Your task to perform on an android device: Do I have any events tomorrow? Image 0: 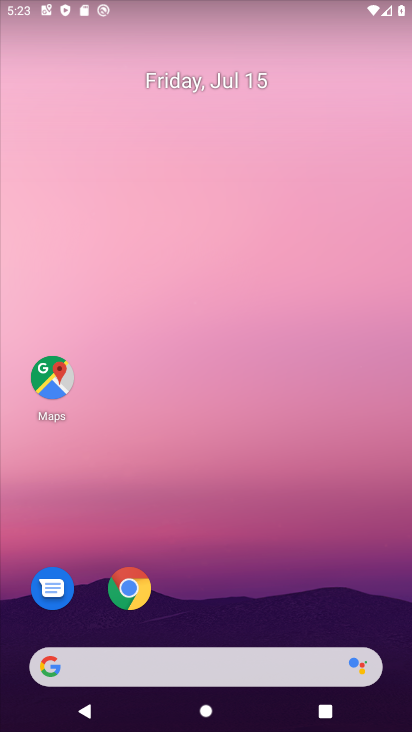
Step 0: drag from (227, 656) to (265, 154)
Your task to perform on an android device: Do I have any events tomorrow? Image 1: 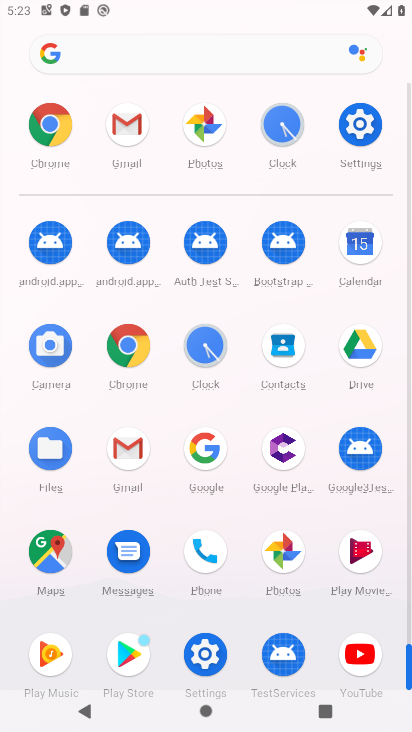
Step 1: click (357, 243)
Your task to perform on an android device: Do I have any events tomorrow? Image 2: 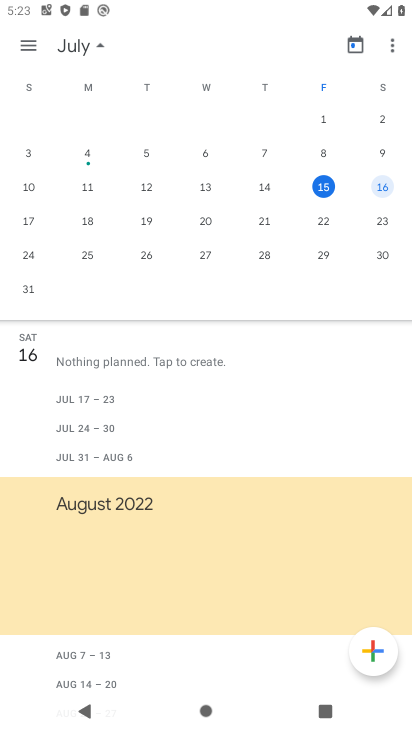
Step 2: click (378, 180)
Your task to perform on an android device: Do I have any events tomorrow? Image 3: 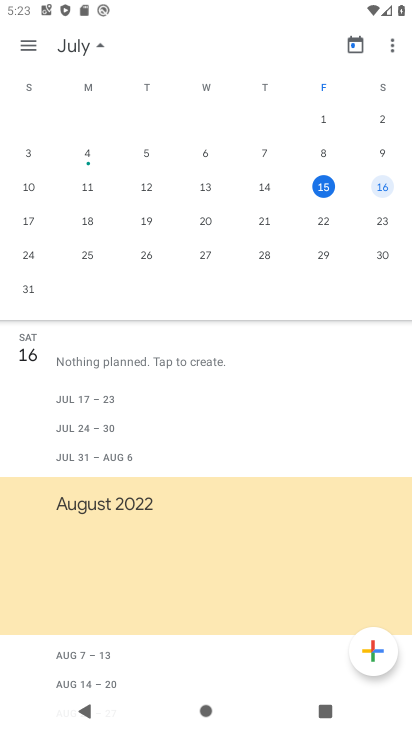
Step 3: task complete